Your task to perform on an android device: turn on airplane mode Image 0: 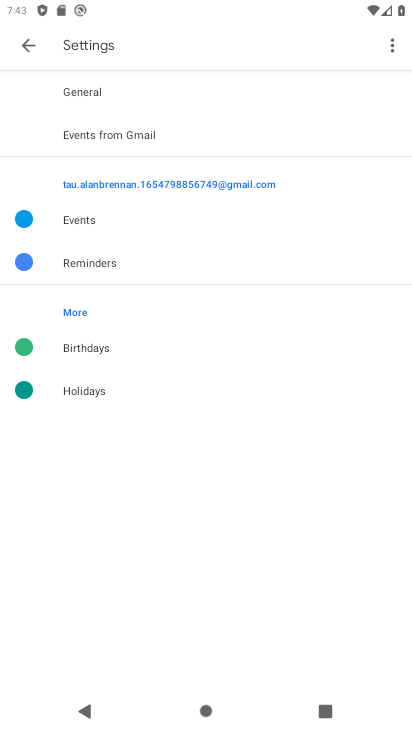
Step 0: press home button
Your task to perform on an android device: turn on airplane mode Image 1: 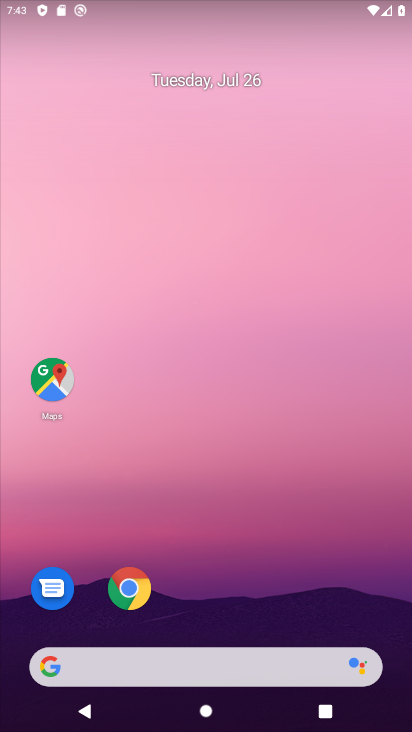
Step 1: drag from (210, 640) to (232, 186)
Your task to perform on an android device: turn on airplane mode Image 2: 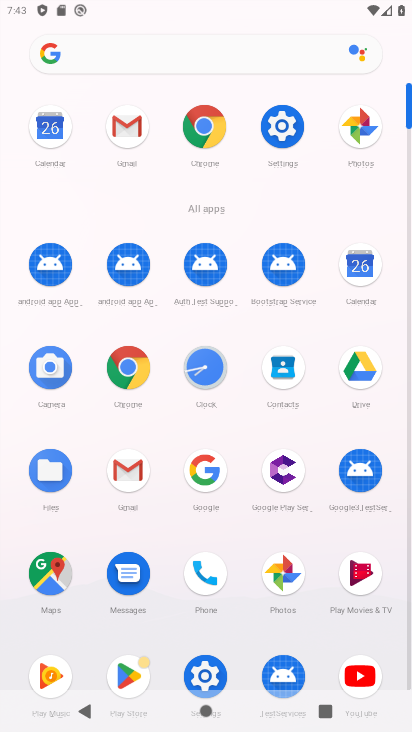
Step 2: click (279, 124)
Your task to perform on an android device: turn on airplane mode Image 3: 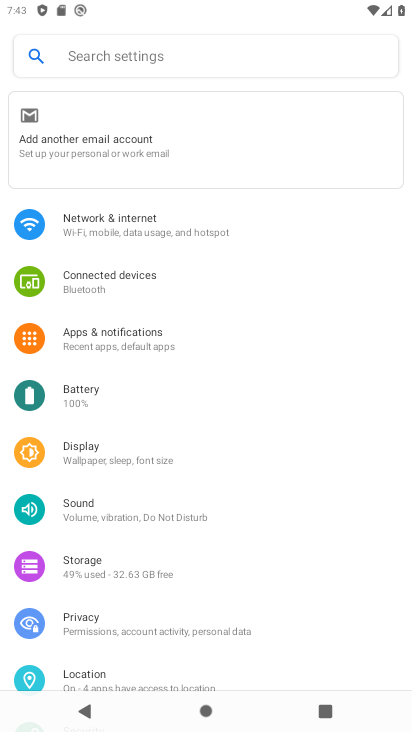
Step 3: click (110, 229)
Your task to perform on an android device: turn on airplane mode Image 4: 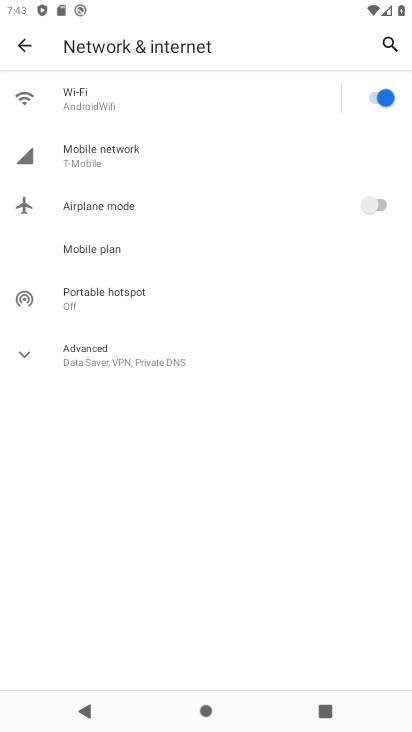
Step 4: click (383, 201)
Your task to perform on an android device: turn on airplane mode Image 5: 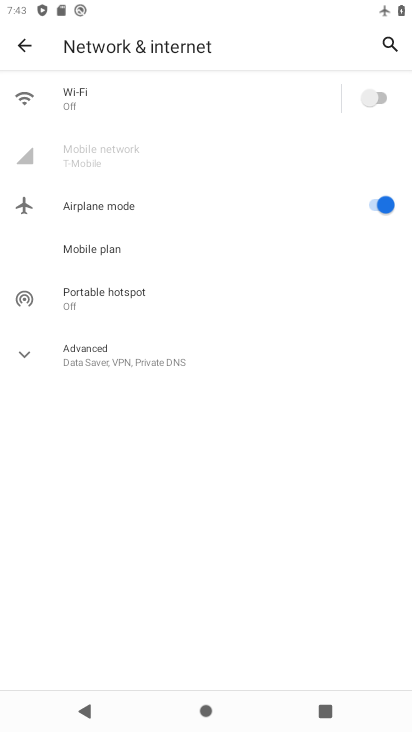
Step 5: task complete